Your task to perform on an android device: remove spam from my inbox in the gmail app Image 0: 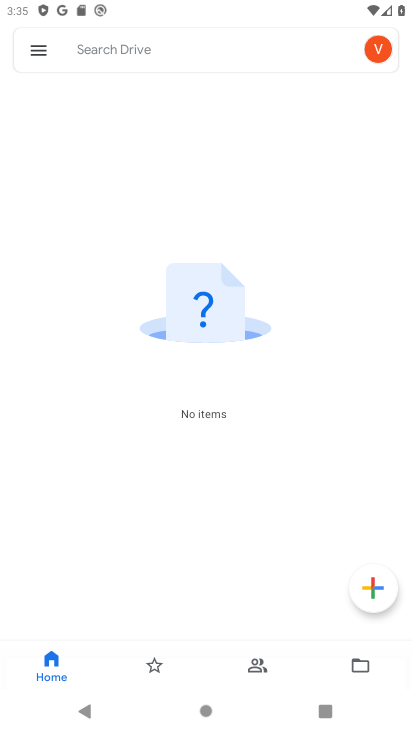
Step 0: press home button
Your task to perform on an android device: remove spam from my inbox in the gmail app Image 1: 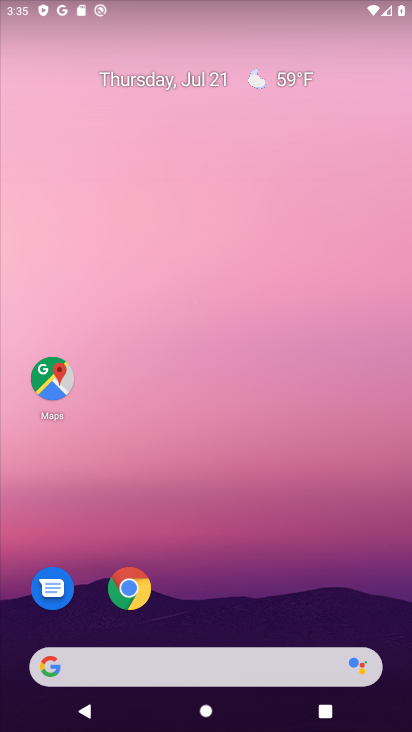
Step 1: drag from (235, 724) to (203, 75)
Your task to perform on an android device: remove spam from my inbox in the gmail app Image 2: 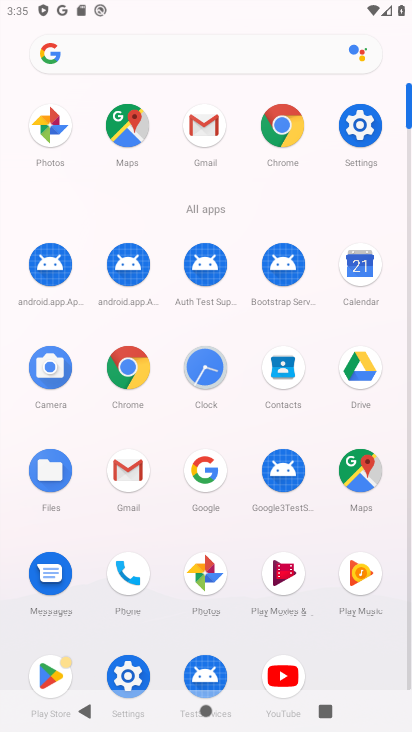
Step 2: click (119, 483)
Your task to perform on an android device: remove spam from my inbox in the gmail app Image 3: 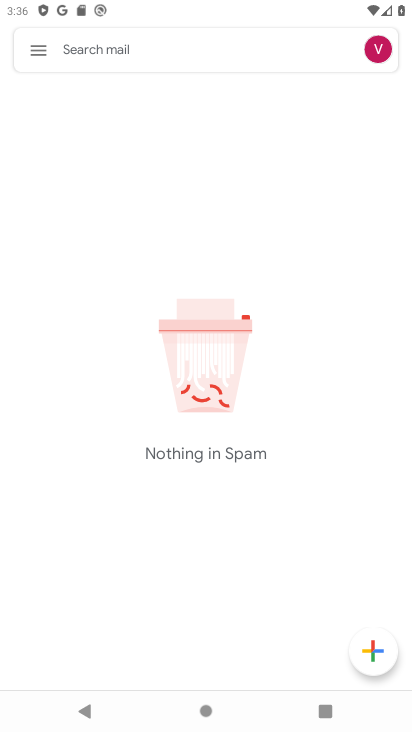
Step 3: click (35, 46)
Your task to perform on an android device: remove spam from my inbox in the gmail app Image 4: 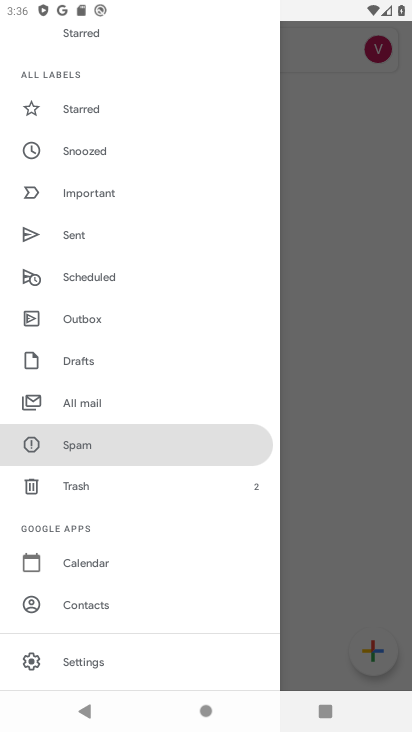
Step 4: drag from (115, 109) to (126, 589)
Your task to perform on an android device: remove spam from my inbox in the gmail app Image 5: 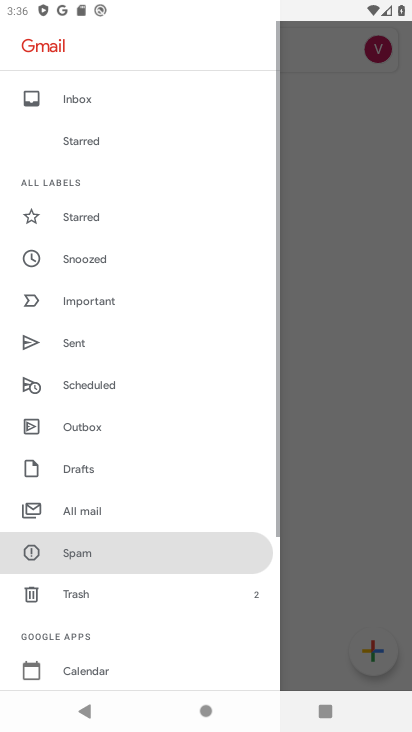
Step 5: click (76, 96)
Your task to perform on an android device: remove spam from my inbox in the gmail app Image 6: 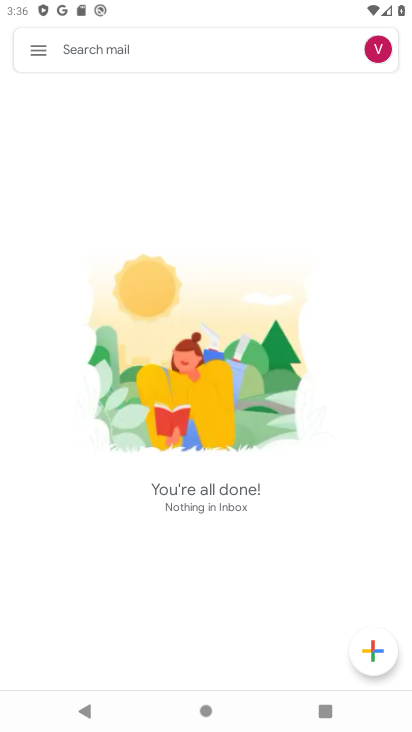
Step 6: task complete